Your task to perform on an android device: open app "Booking.com: Hotels and more" Image 0: 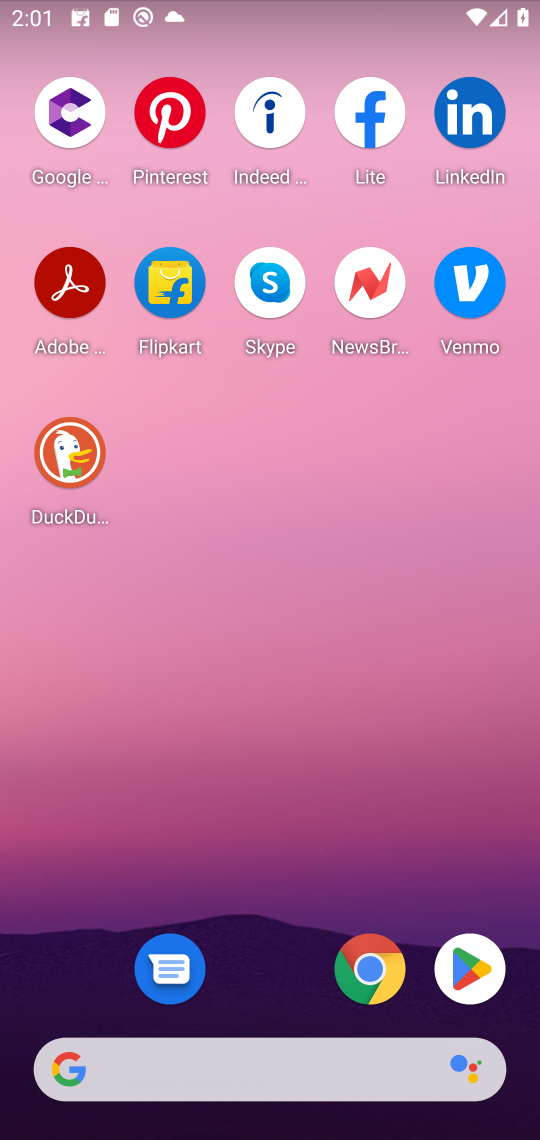
Step 0: press home button
Your task to perform on an android device: open app "Booking.com: Hotels and more" Image 1: 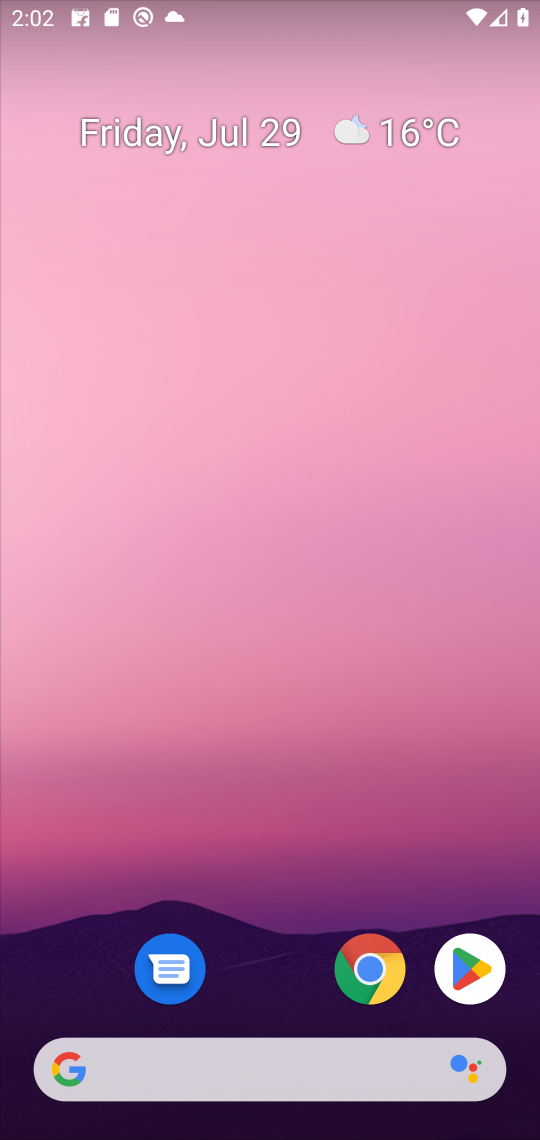
Step 1: click (486, 973)
Your task to perform on an android device: open app "Booking.com: Hotels and more" Image 2: 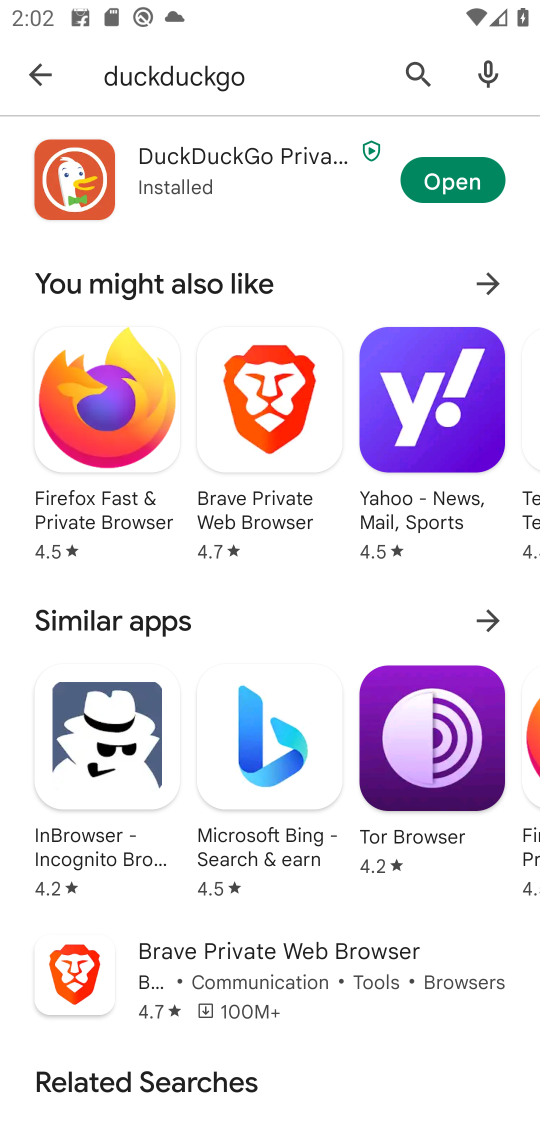
Step 2: click (416, 69)
Your task to perform on an android device: open app "Booking.com: Hotels and more" Image 3: 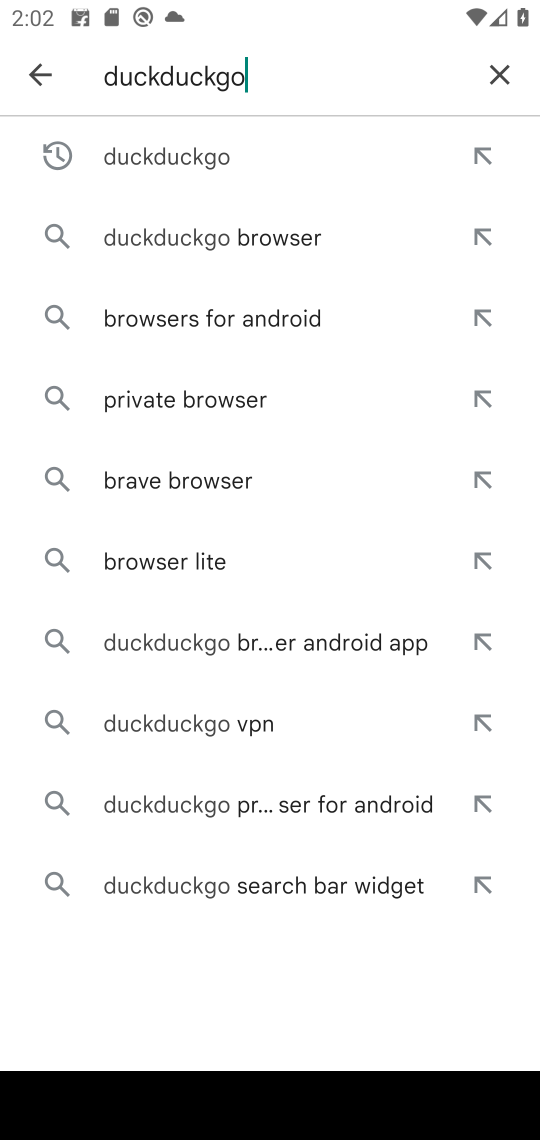
Step 3: click (498, 81)
Your task to perform on an android device: open app "Booking.com: Hotels and more" Image 4: 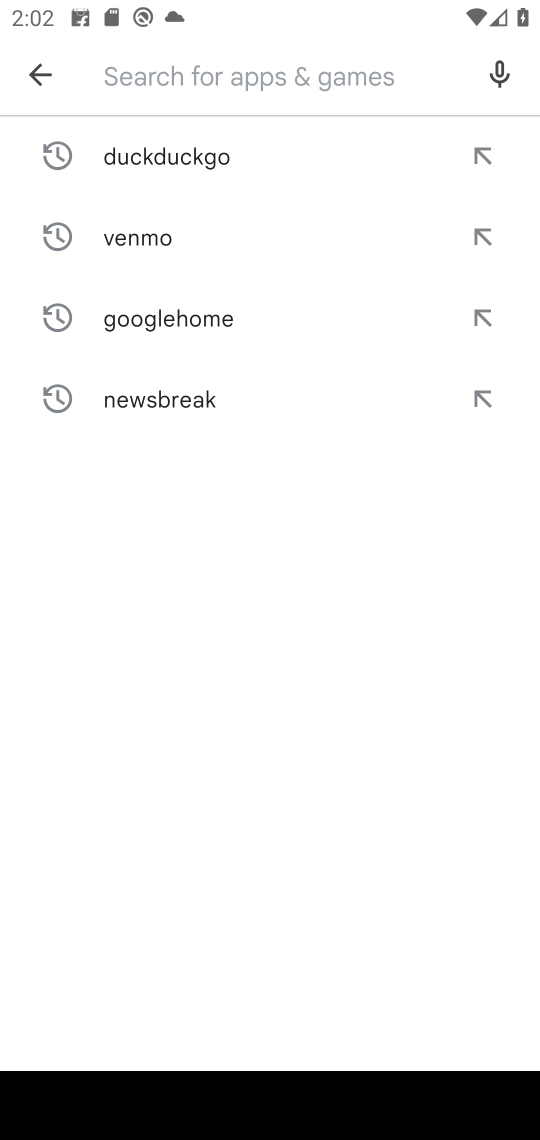
Step 4: type "booking"
Your task to perform on an android device: open app "Booking.com: Hotels and more" Image 5: 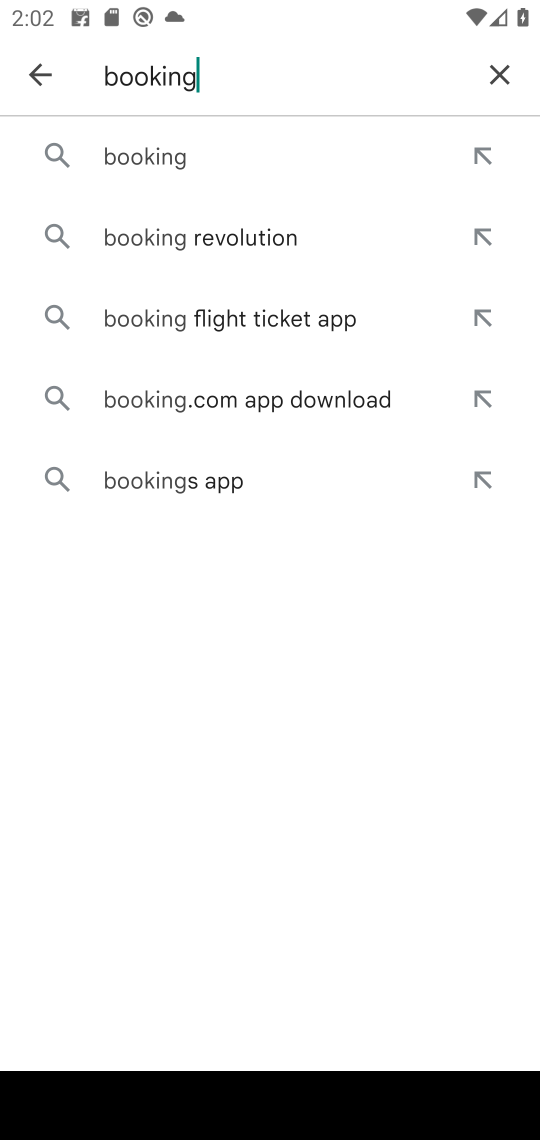
Step 5: click (242, 172)
Your task to perform on an android device: open app "Booking.com: Hotels and more" Image 6: 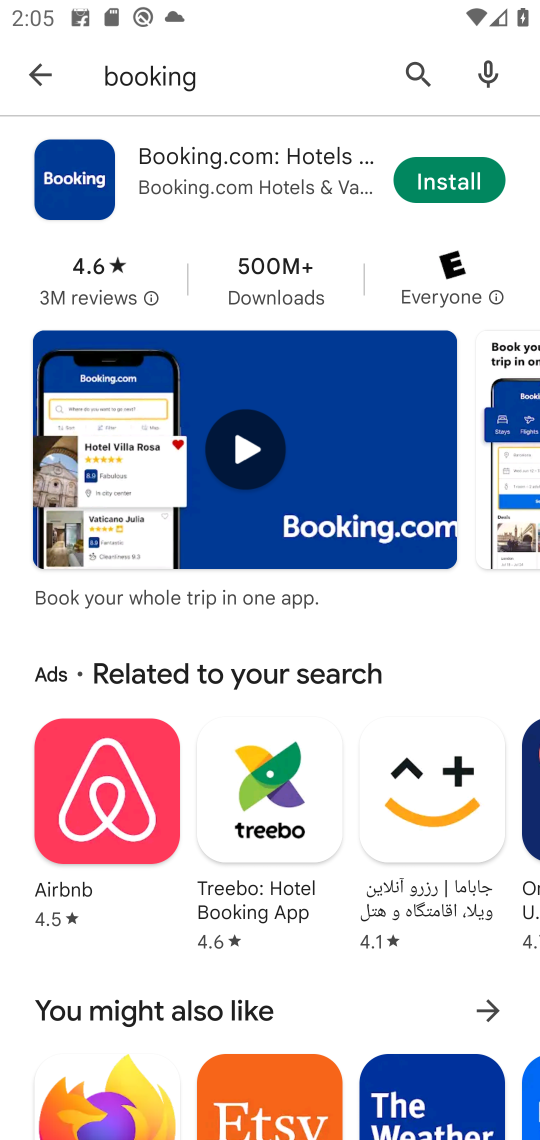
Step 6: task complete